Your task to perform on an android device: Open the map Image 0: 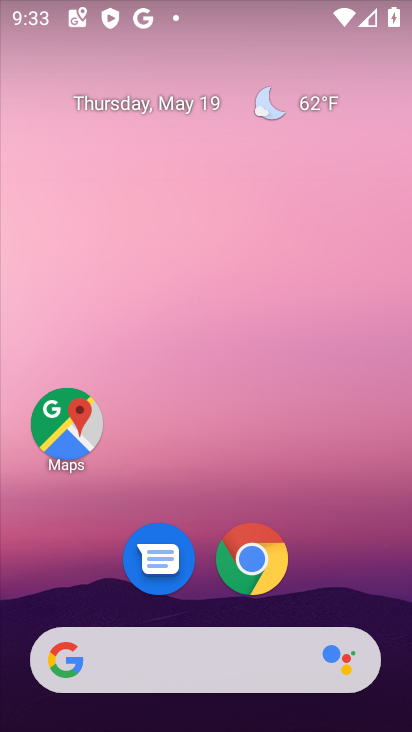
Step 0: click (37, 421)
Your task to perform on an android device: Open the map Image 1: 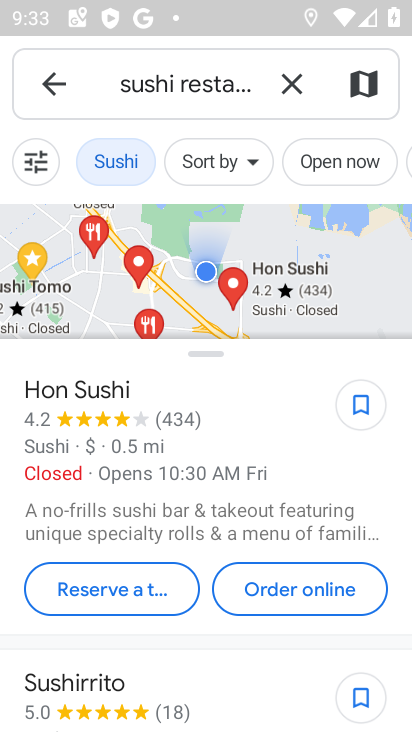
Step 1: task complete